Your task to perform on an android device: Open Google Chrome Image 0: 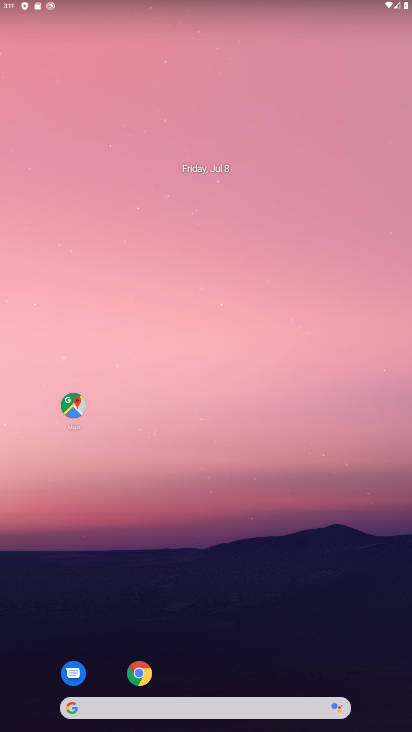
Step 0: click (143, 674)
Your task to perform on an android device: Open Google Chrome Image 1: 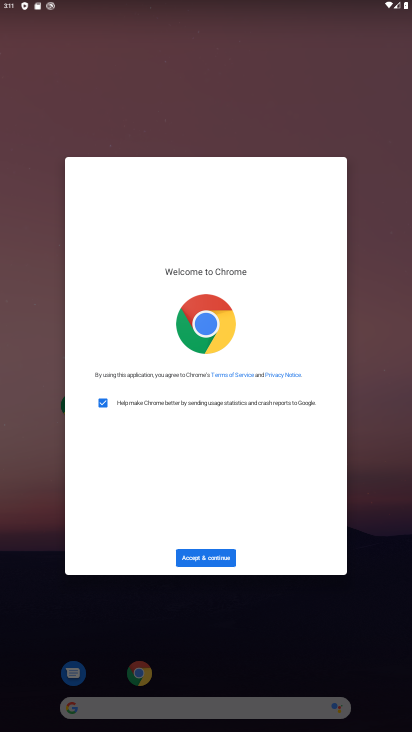
Step 1: click (195, 557)
Your task to perform on an android device: Open Google Chrome Image 2: 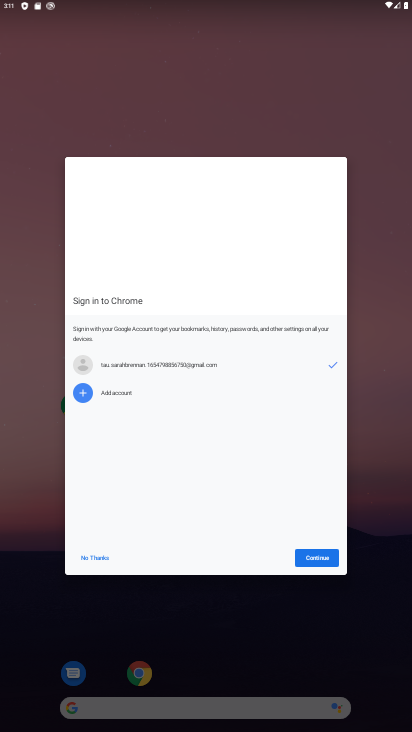
Step 2: click (106, 559)
Your task to perform on an android device: Open Google Chrome Image 3: 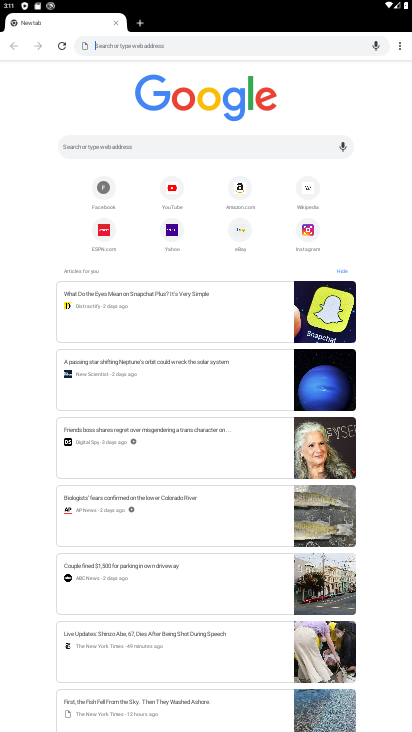
Step 3: task complete